Your task to perform on an android device: toggle pop-ups in chrome Image 0: 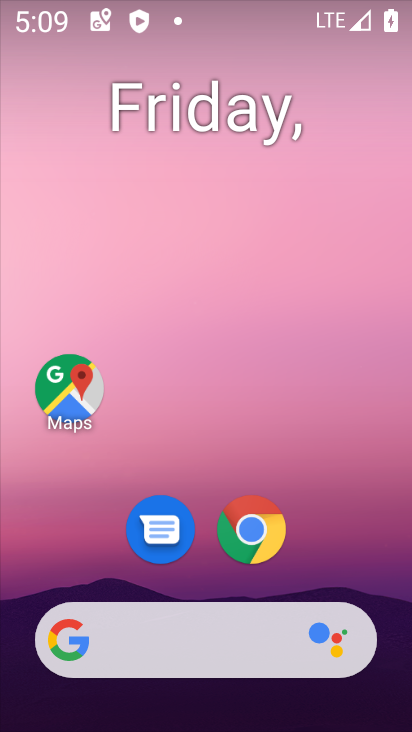
Step 0: click (254, 539)
Your task to perform on an android device: toggle pop-ups in chrome Image 1: 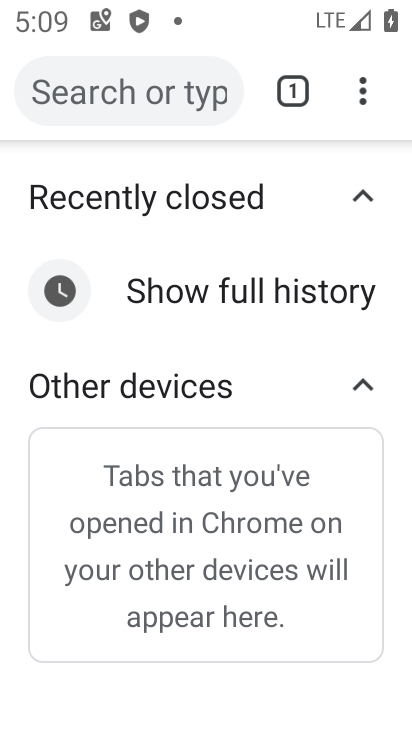
Step 1: click (367, 92)
Your task to perform on an android device: toggle pop-ups in chrome Image 2: 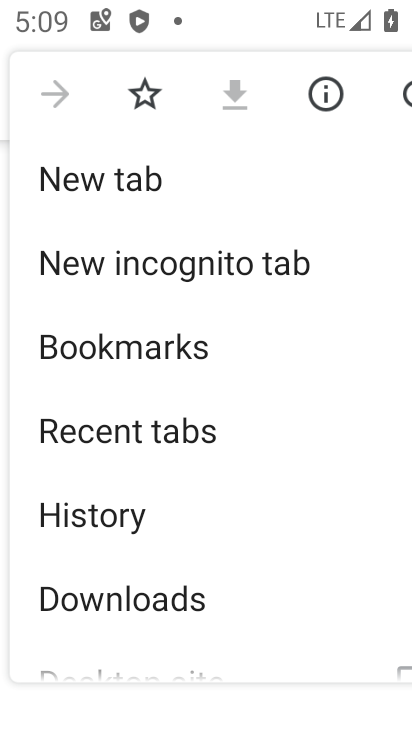
Step 2: drag from (228, 600) to (248, 214)
Your task to perform on an android device: toggle pop-ups in chrome Image 3: 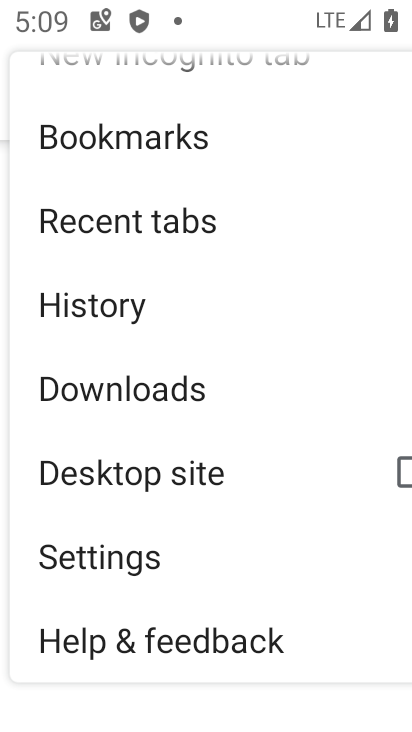
Step 3: click (139, 557)
Your task to perform on an android device: toggle pop-ups in chrome Image 4: 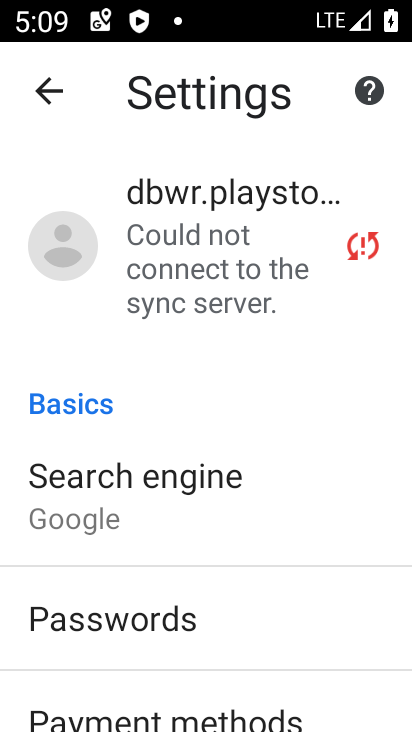
Step 4: drag from (207, 663) to (140, 169)
Your task to perform on an android device: toggle pop-ups in chrome Image 5: 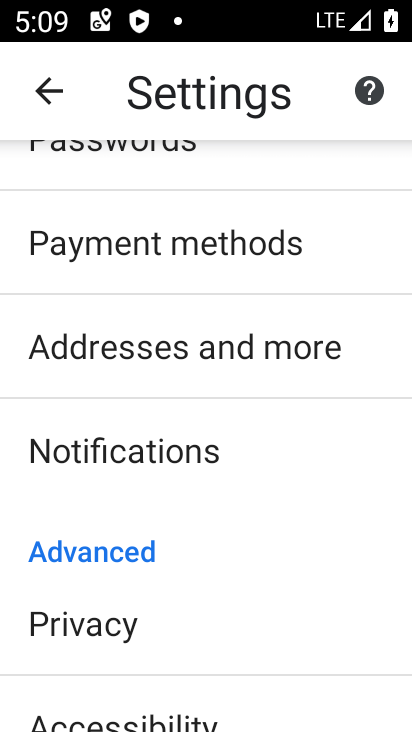
Step 5: drag from (168, 615) to (175, 267)
Your task to perform on an android device: toggle pop-ups in chrome Image 6: 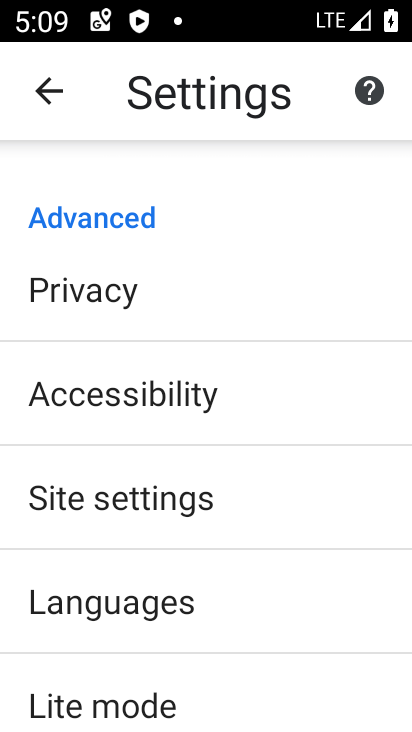
Step 6: click (129, 507)
Your task to perform on an android device: toggle pop-ups in chrome Image 7: 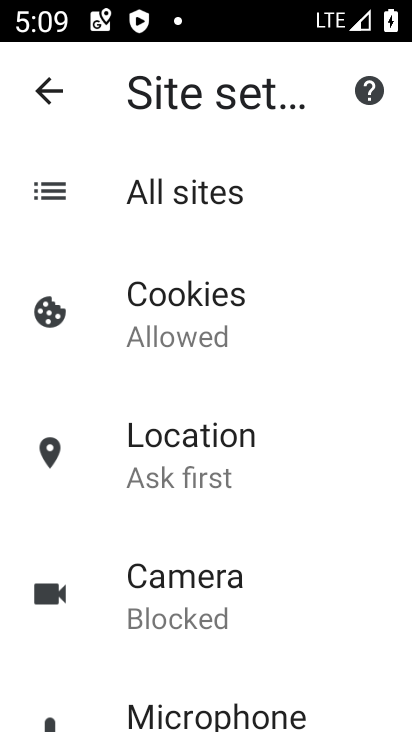
Step 7: drag from (228, 652) to (249, 237)
Your task to perform on an android device: toggle pop-ups in chrome Image 8: 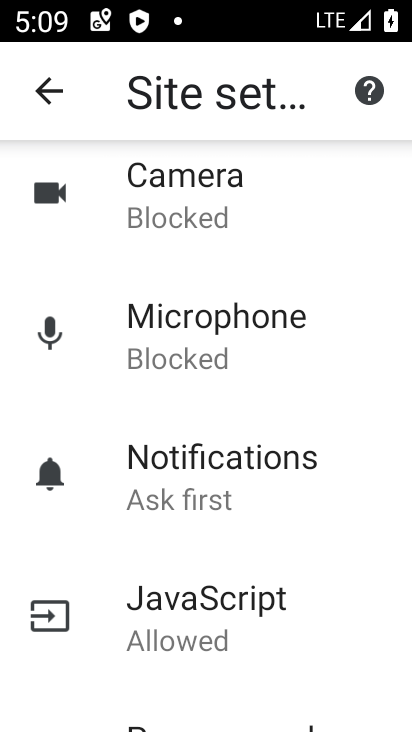
Step 8: drag from (216, 646) to (215, 350)
Your task to perform on an android device: toggle pop-ups in chrome Image 9: 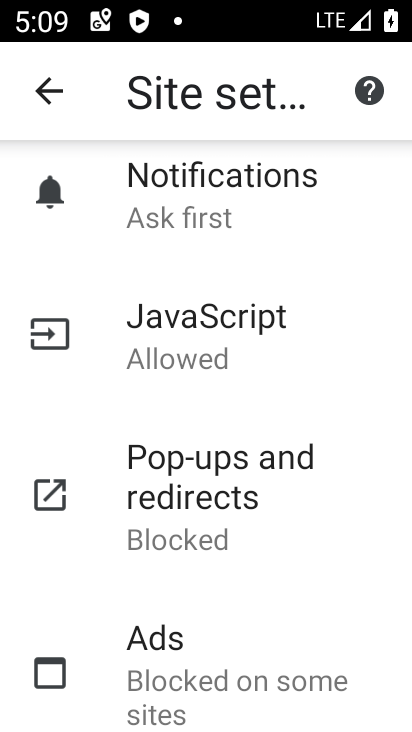
Step 9: click (195, 497)
Your task to perform on an android device: toggle pop-ups in chrome Image 10: 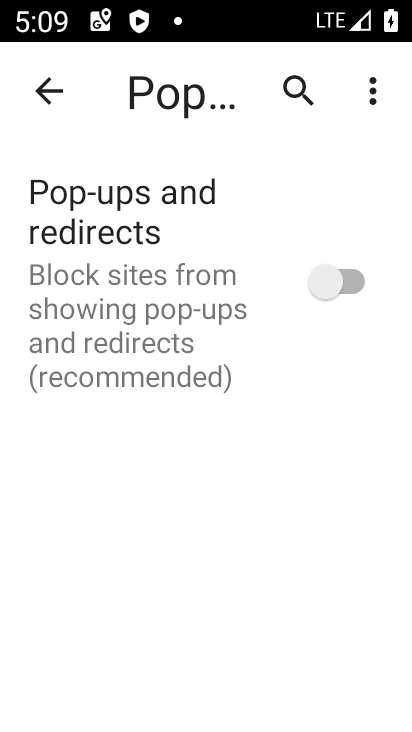
Step 10: click (327, 280)
Your task to perform on an android device: toggle pop-ups in chrome Image 11: 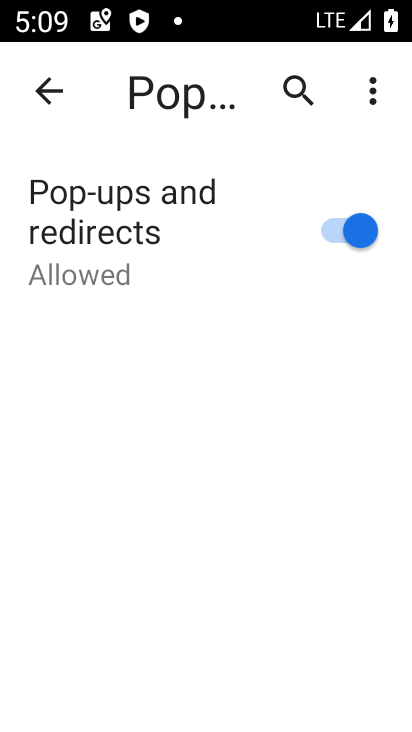
Step 11: task complete